Your task to perform on an android device: turn off location history Image 0: 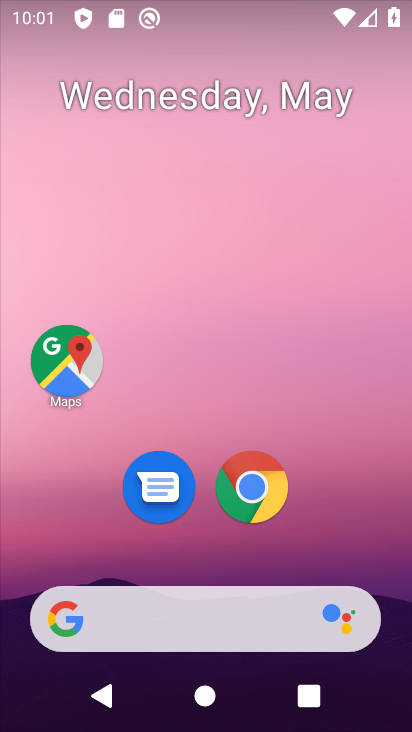
Step 0: drag from (304, 533) to (258, 8)
Your task to perform on an android device: turn off location history Image 1: 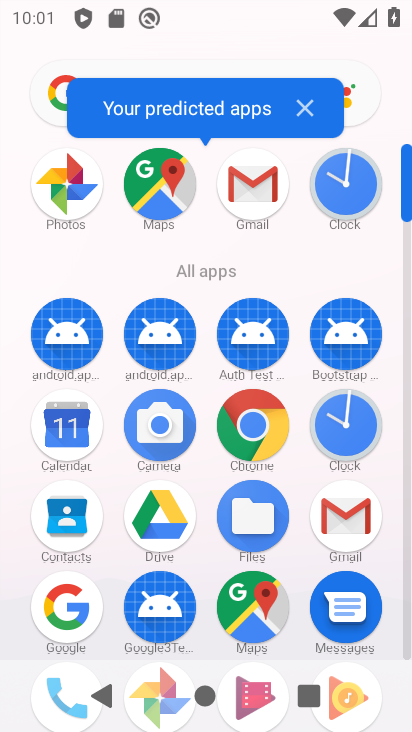
Step 1: drag from (0, 586) to (4, 205)
Your task to perform on an android device: turn off location history Image 2: 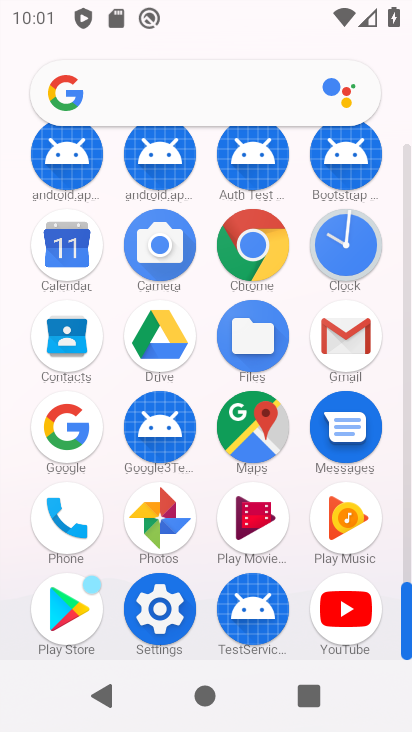
Step 2: click (158, 591)
Your task to perform on an android device: turn off location history Image 3: 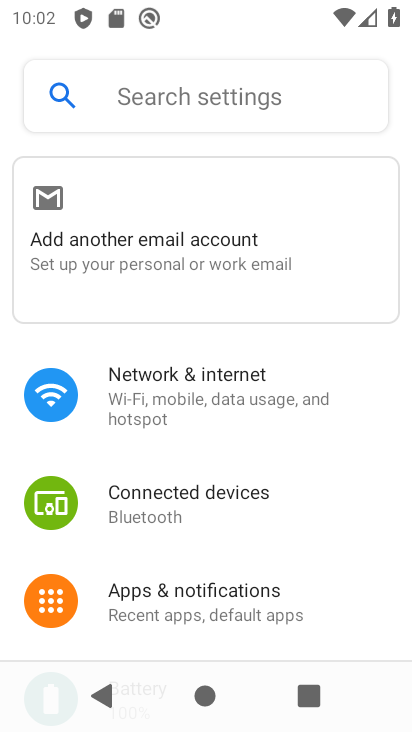
Step 3: drag from (307, 560) to (306, 112)
Your task to perform on an android device: turn off location history Image 4: 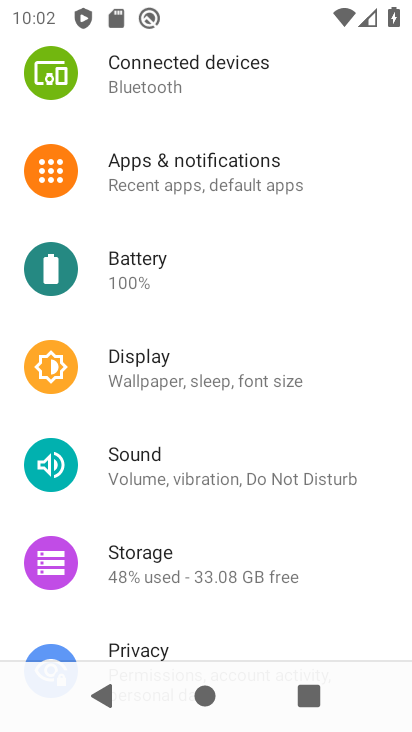
Step 4: drag from (288, 487) to (312, 98)
Your task to perform on an android device: turn off location history Image 5: 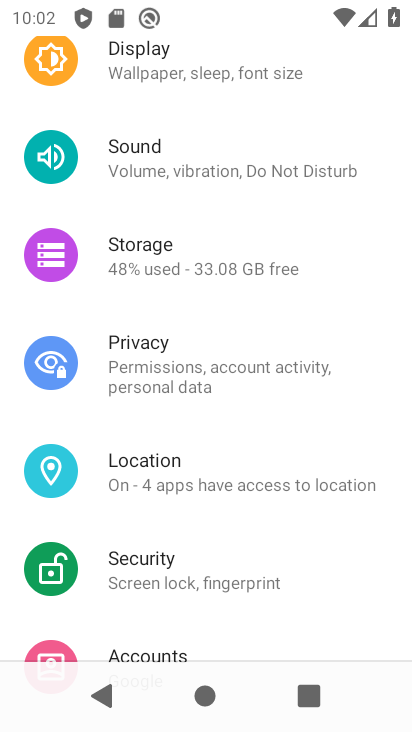
Step 5: drag from (236, 530) to (272, 243)
Your task to perform on an android device: turn off location history Image 6: 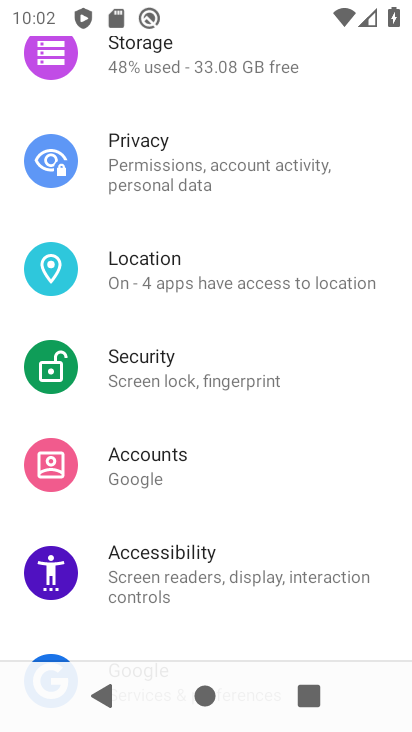
Step 6: click (157, 426)
Your task to perform on an android device: turn off location history Image 7: 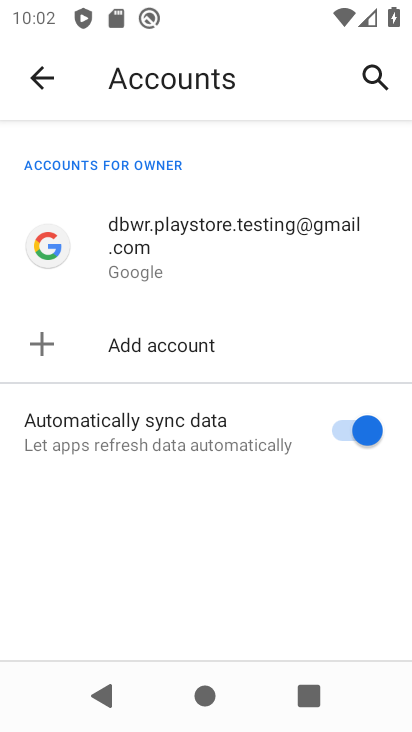
Step 7: click (40, 68)
Your task to perform on an android device: turn off location history Image 8: 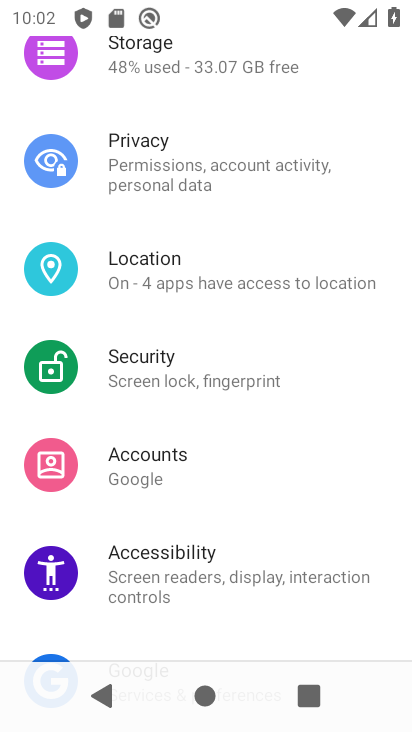
Step 8: drag from (218, 107) to (234, 403)
Your task to perform on an android device: turn off location history Image 9: 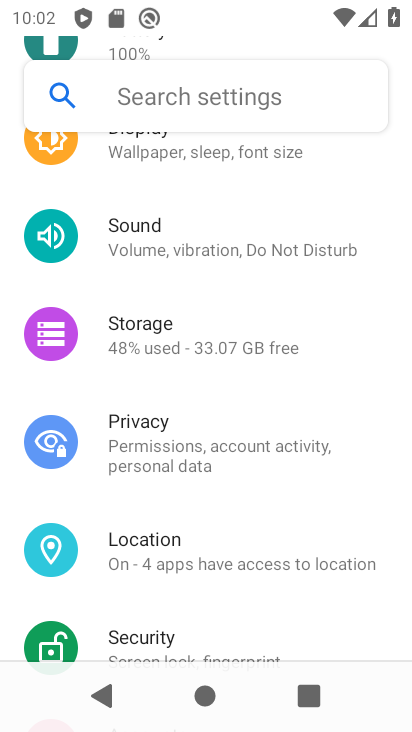
Step 9: click (179, 541)
Your task to perform on an android device: turn off location history Image 10: 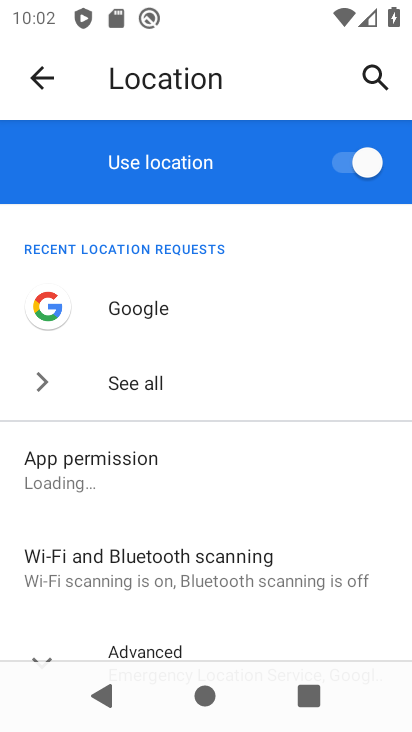
Step 10: drag from (204, 542) to (259, 202)
Your task to perform on an android device: turn off location history Image 11: 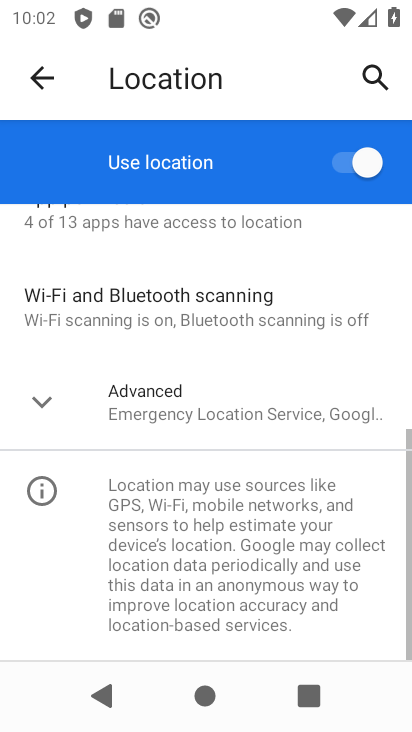
Step 11: click (35, 393)
Your task to perform on an android device: turn off location history Image 12: 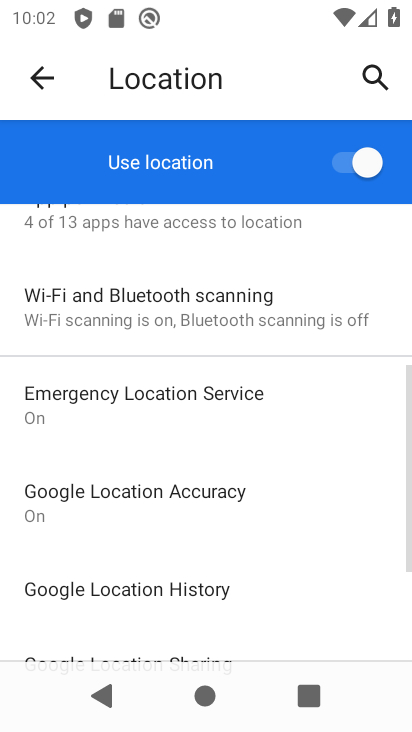
Step 12: task complete